Your task to perform on an android device: Show me the best 1080p monitor on Target.com Image 0: 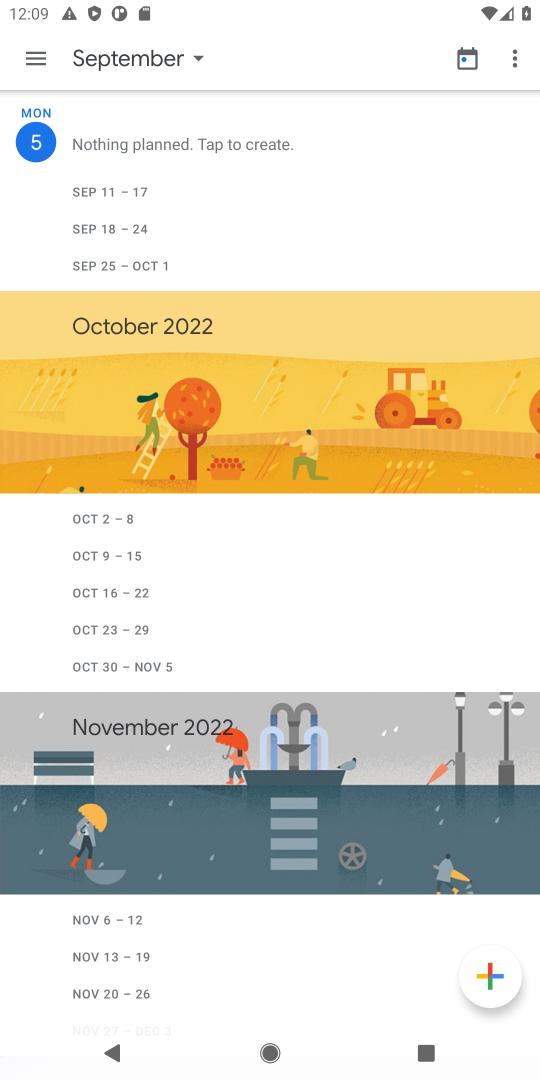
Step 0: press home button
Your task to perform on an android device: Show me the best 1080p monitor on Target.com Image 1: 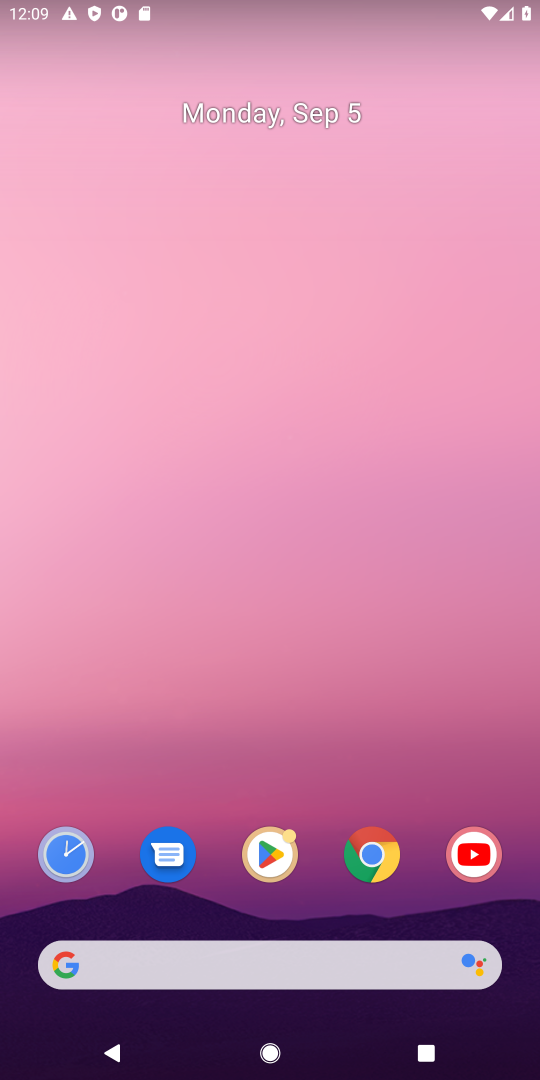
Step 1: click (240, 963)
Your task to perform on an android device: Show me the best 1080p monitor on Target.com Image 2: 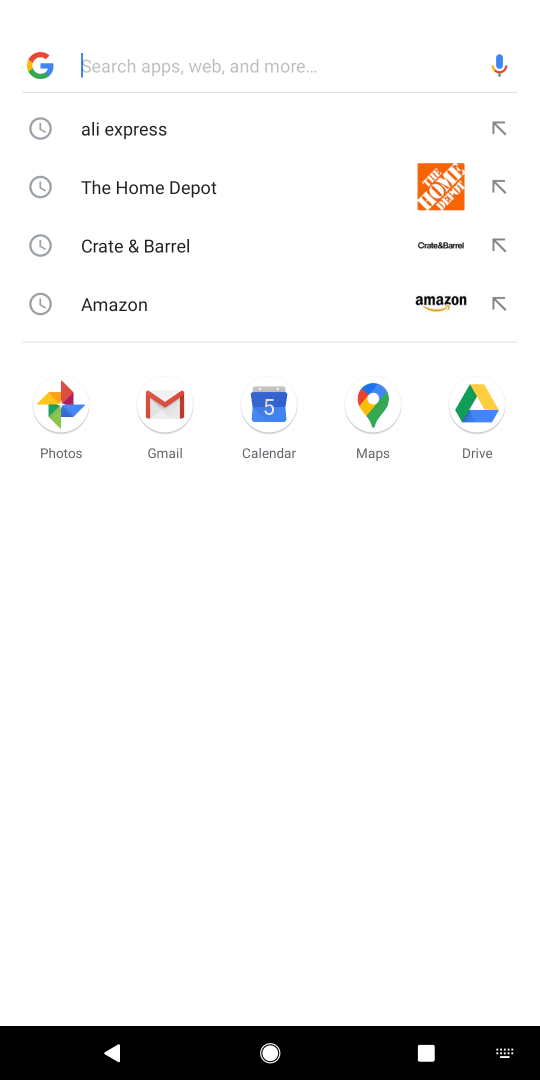
Step 2: type "target.com"
Your task to perform on an android device: Show me the best 1080p monitor on Target.com Image 3: 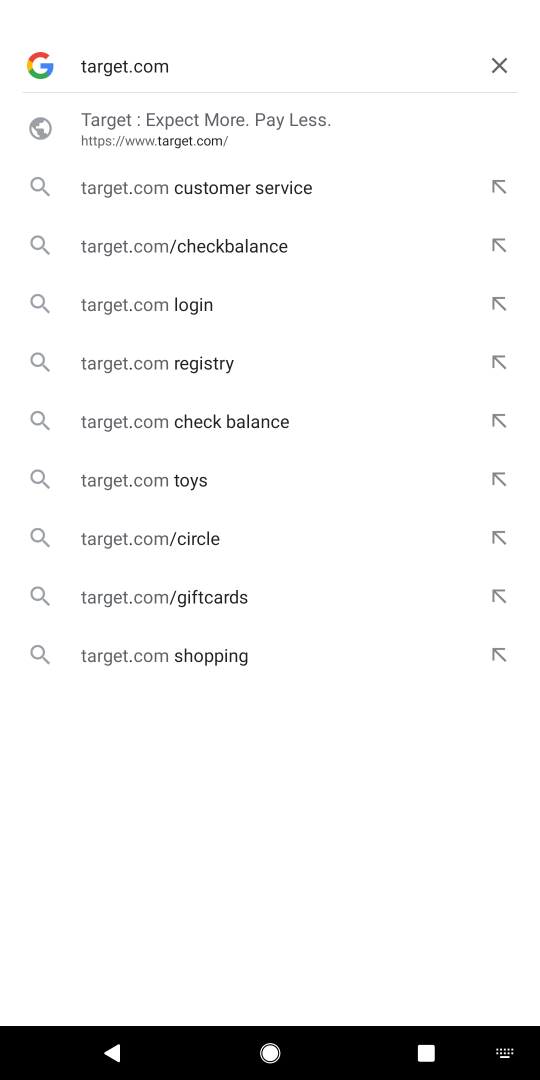
Step 3: press enter
Your task to perform on an android device: Show me the best 1080p monitor on Target.com Image 4: 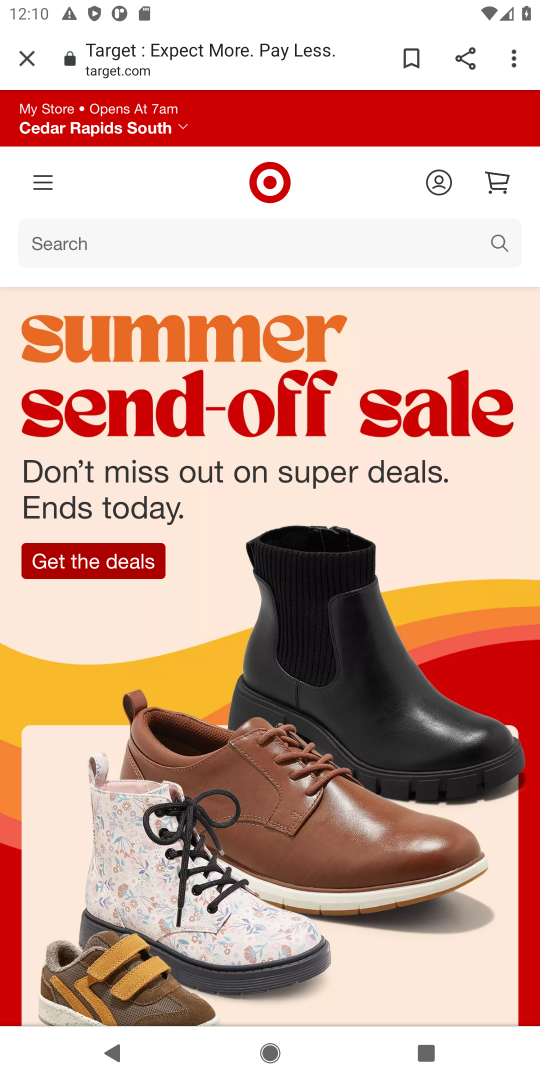
Step 4: click (128, 242)
Your task to perform on an android device: Show me the best 1080p monitor on Target.com Image 5: 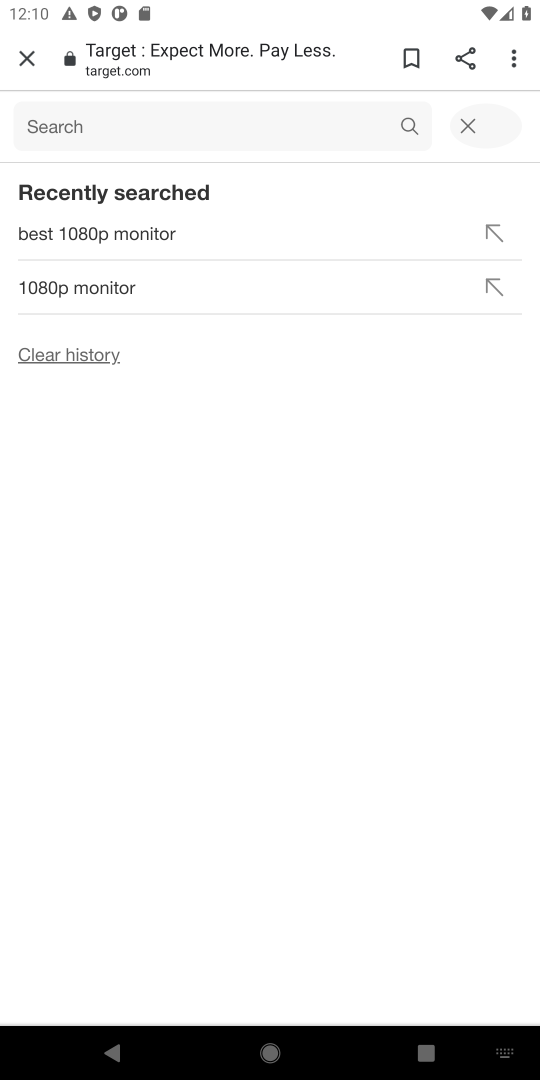
Step 5: type "1080p monitor"
Your task to perform on an android device: Show me the best 1080p monitor on Target.com Image 6: 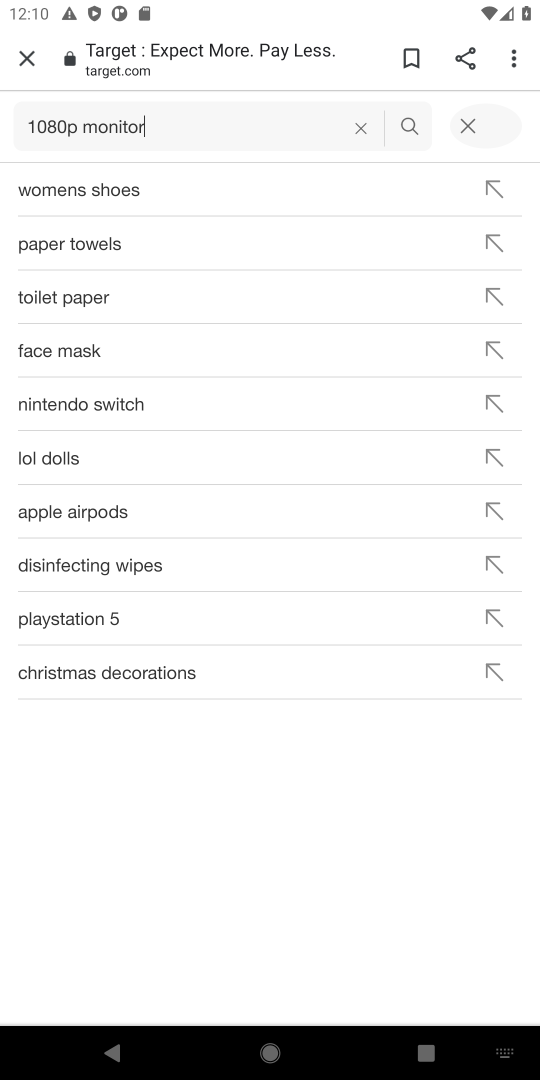
Step 6: press enter
Your task to perform on an android device: Show me the best 1080p monitor on Target.com Image 7: 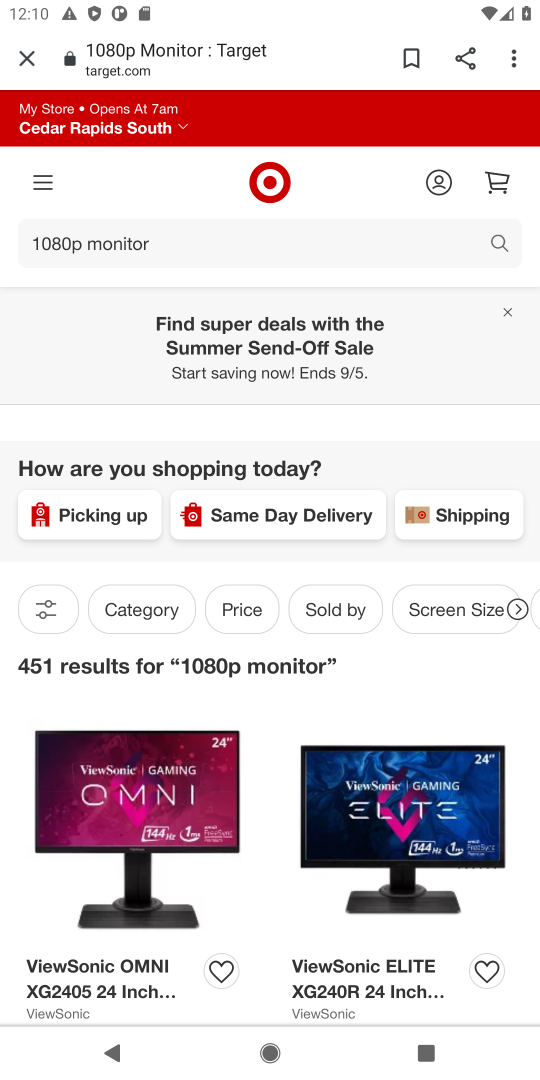
Step 7: task complete